Your task to perform on an android device: Open Chrome and go to the settings page Image 0: 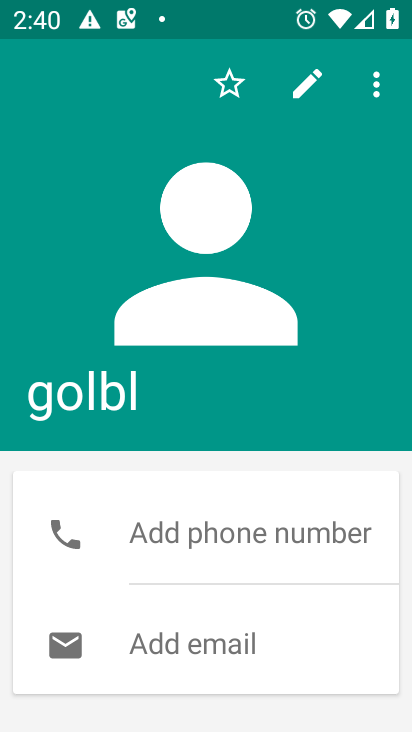
Step 0: press home button
Your task to perform on an android device: Open Chrome and go to the settings page Image 1: 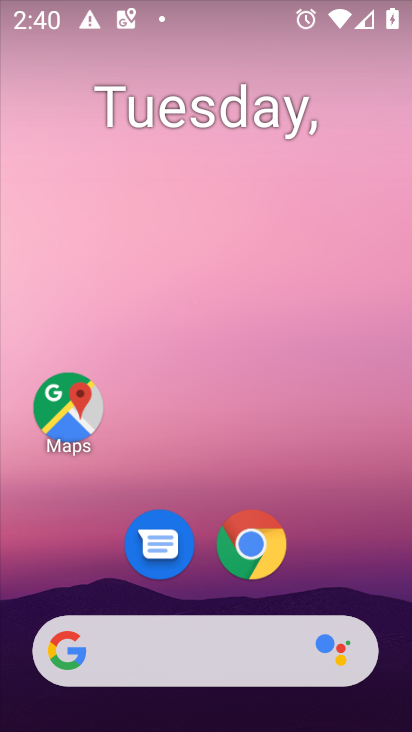
Step 1: drag from (339, 562) to (1, 283)
Your task to perform on an android device: Open Chrome and go to the settings page Image 2: 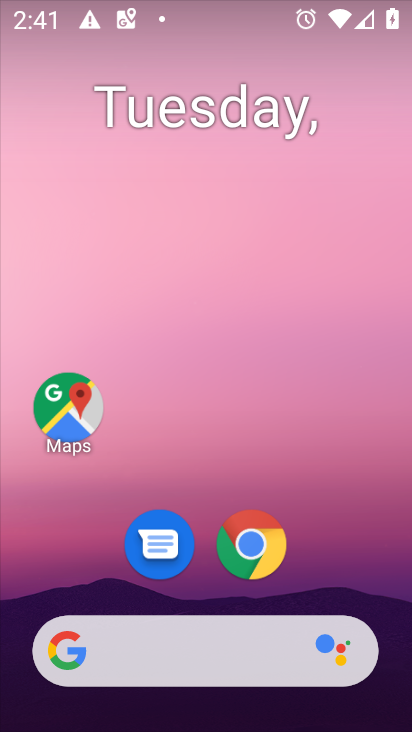
Step 2: drag from (347, 553) to (277, 25)
Your task to perform on an android device: Open Chrome and go to the settings page Image 3: 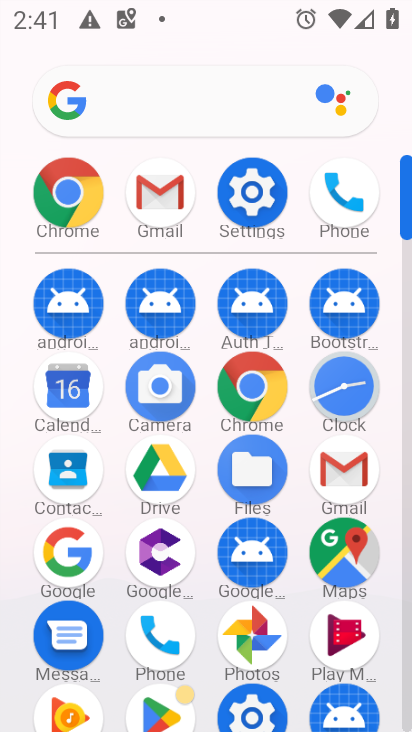
Step 3: click (255, 384)
Your task to perform on an android device: Open Chrome and go to the settings page Image 4: 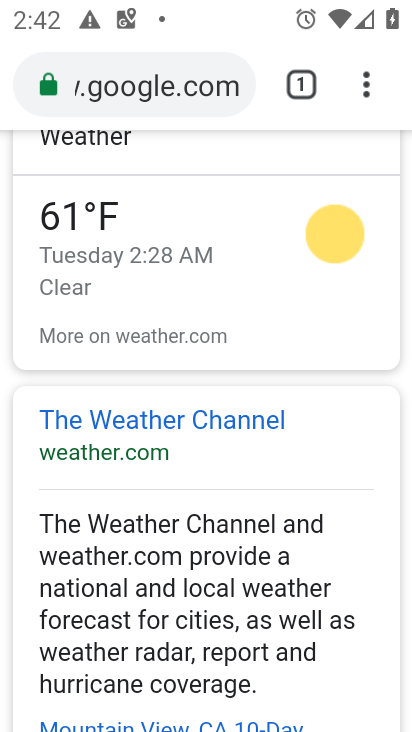
Step 4: task complete